Your task to perform on an android device: change timer sound Image 0: 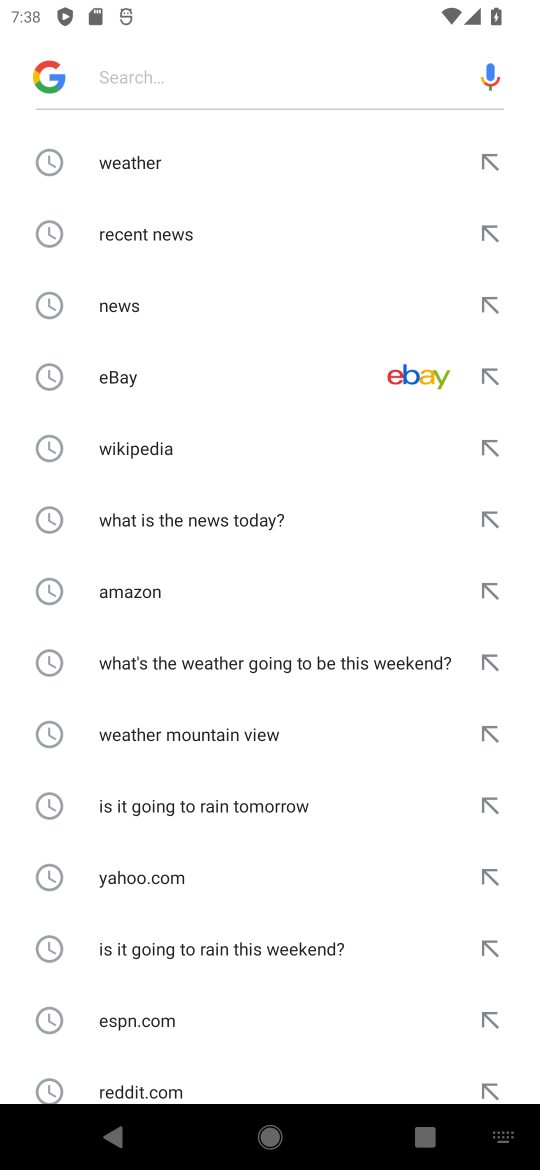
Step 0: press home button
Your task to perform on an android device: change timer sound Image 1: 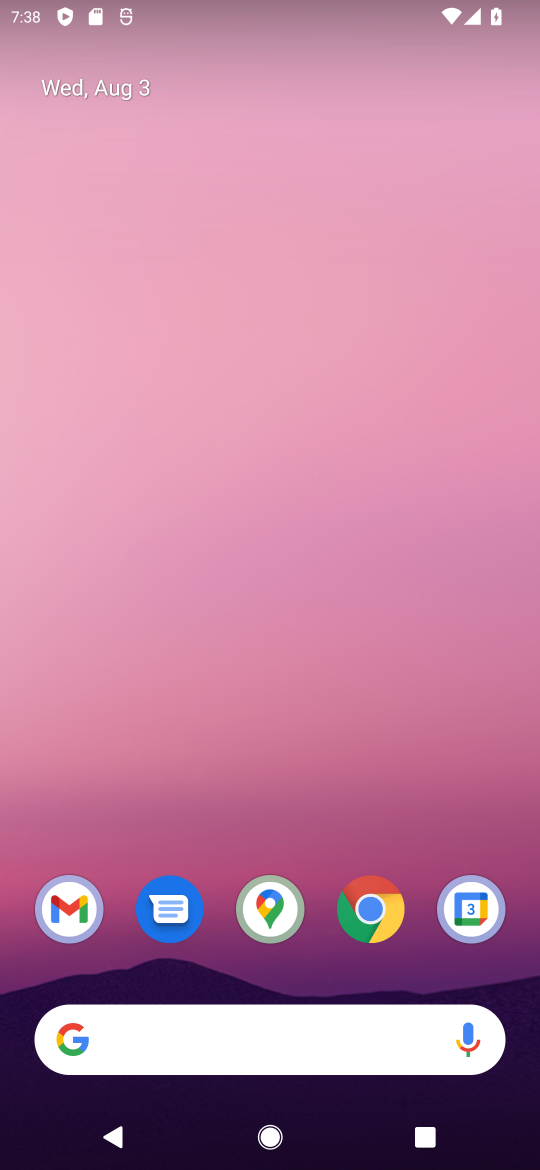
Step 1: drag from (325, 940) to (319, 252)
Your task to perform on an android device: change timer sound Image 2: 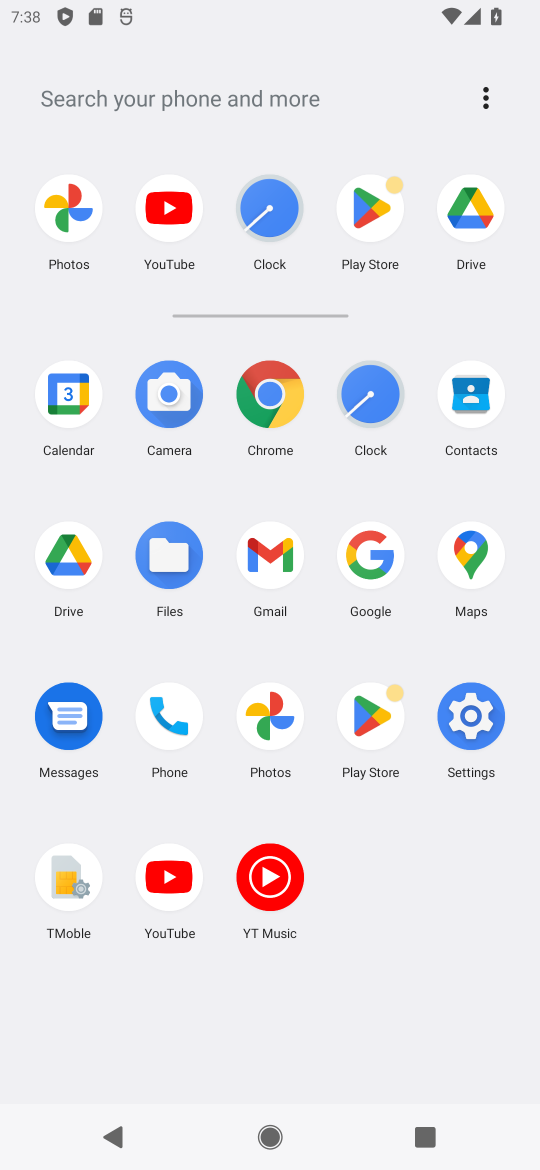
Step 2: click (380, 396)
Your task to perform on an android device: change timer sound Image 3: 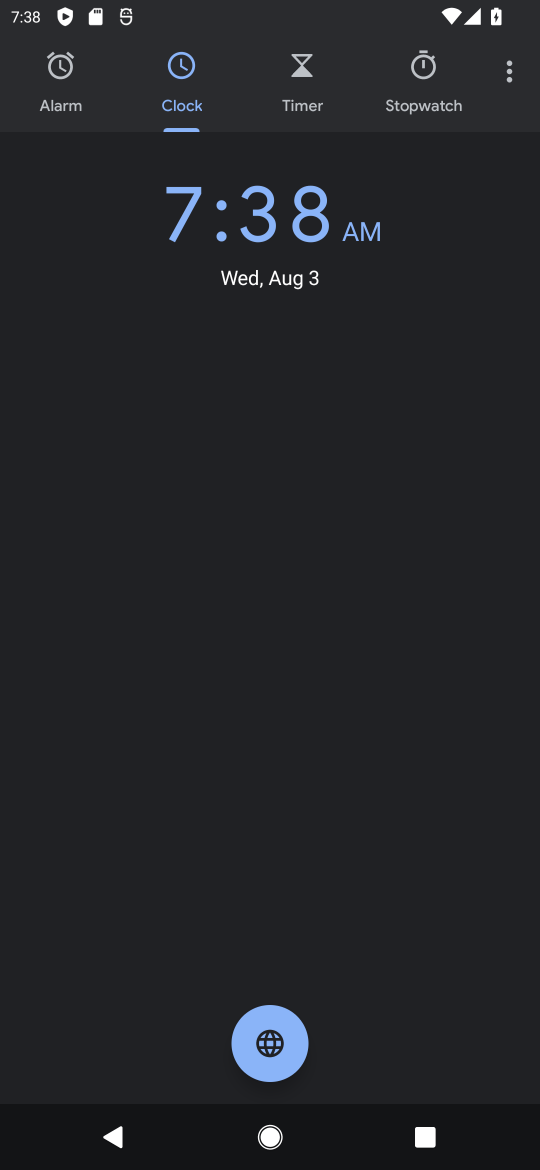
Step 3: click (508, 72)
Your task to perform on an android device: change timer sound Image 4: 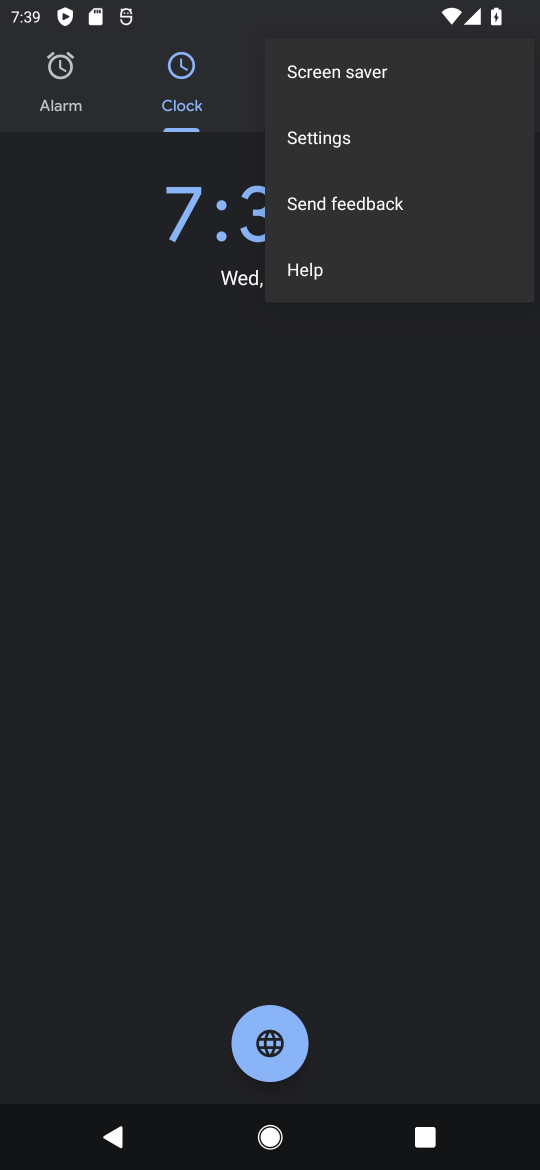
Step 4: click (327, 137)
Your task to perform on an android device: change timer sound Image 5: 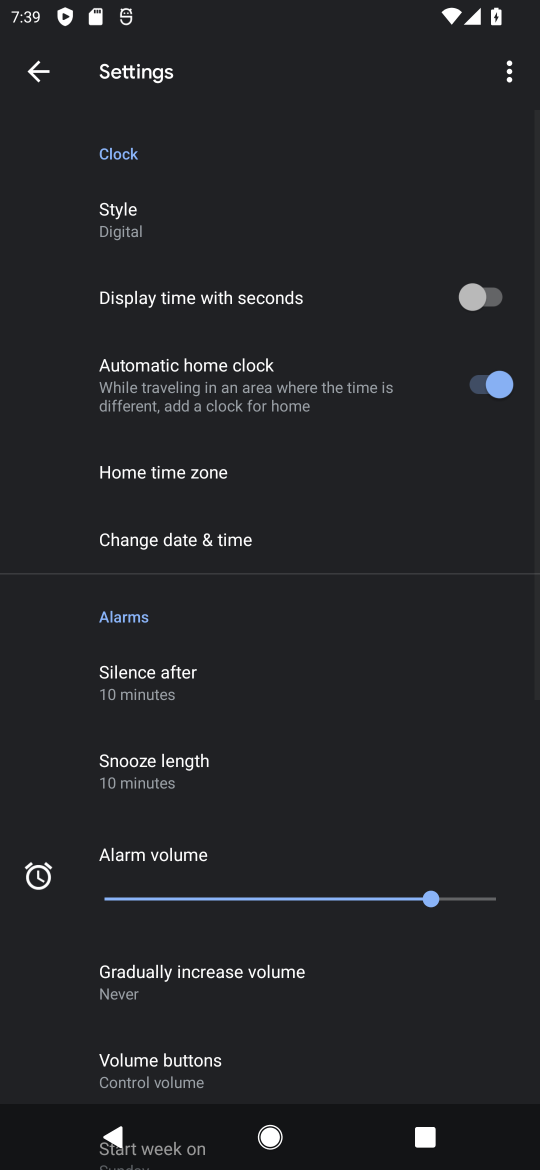
Step 5: drag from (359, 779) to (362, 568)
Your task to perform on an android device: change timer sound Image 6: 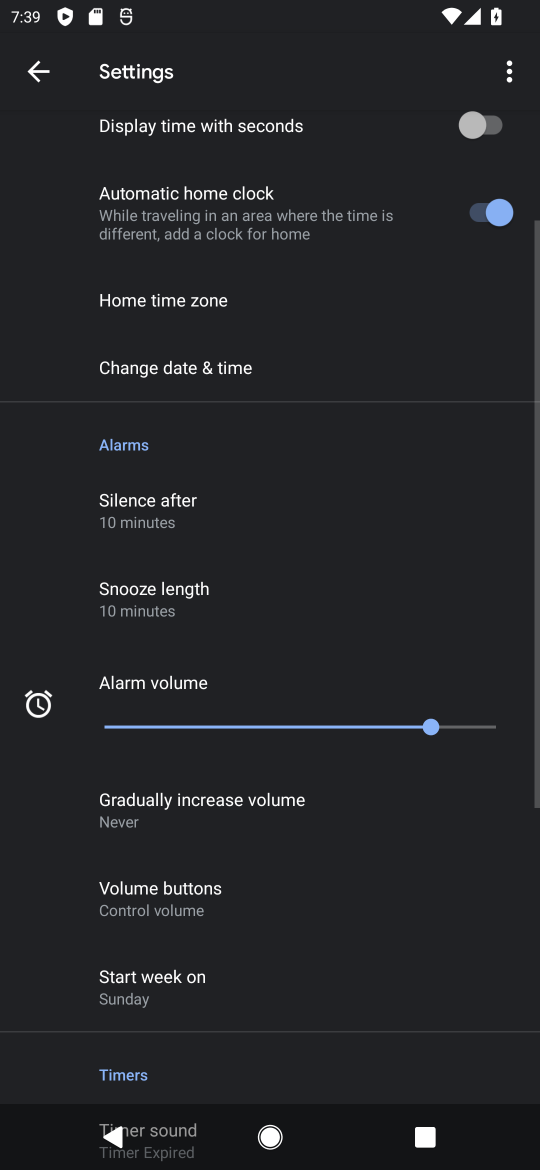
Step 6: drag from (373, 906) to (367, 589)
Your task to perform on an android device: change timer sound Image 7: 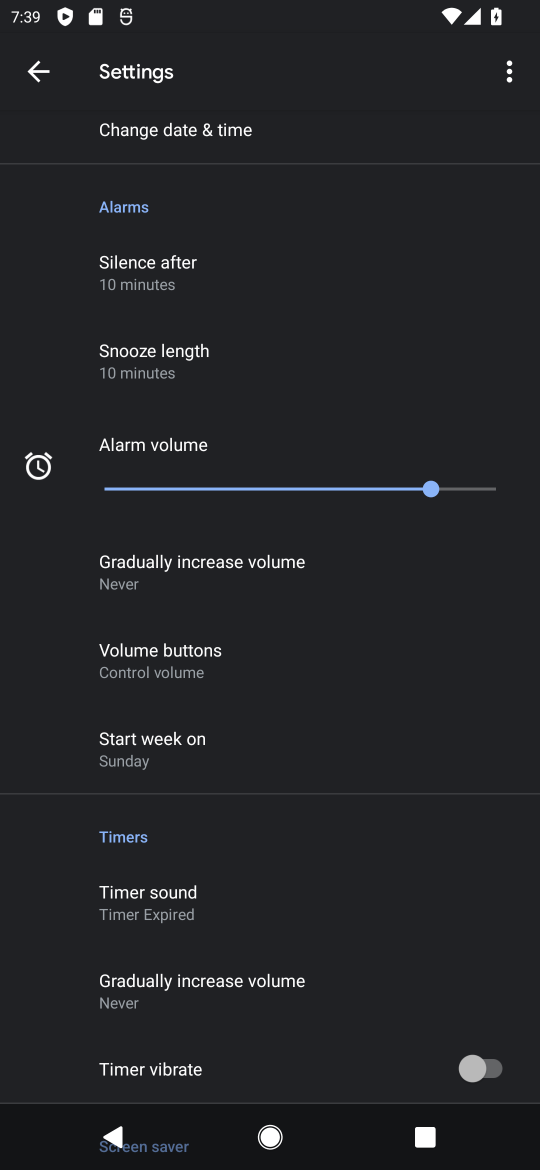
Step 7: click (246, 900)
Your task to perform on an android device: change timer sound Image 8: 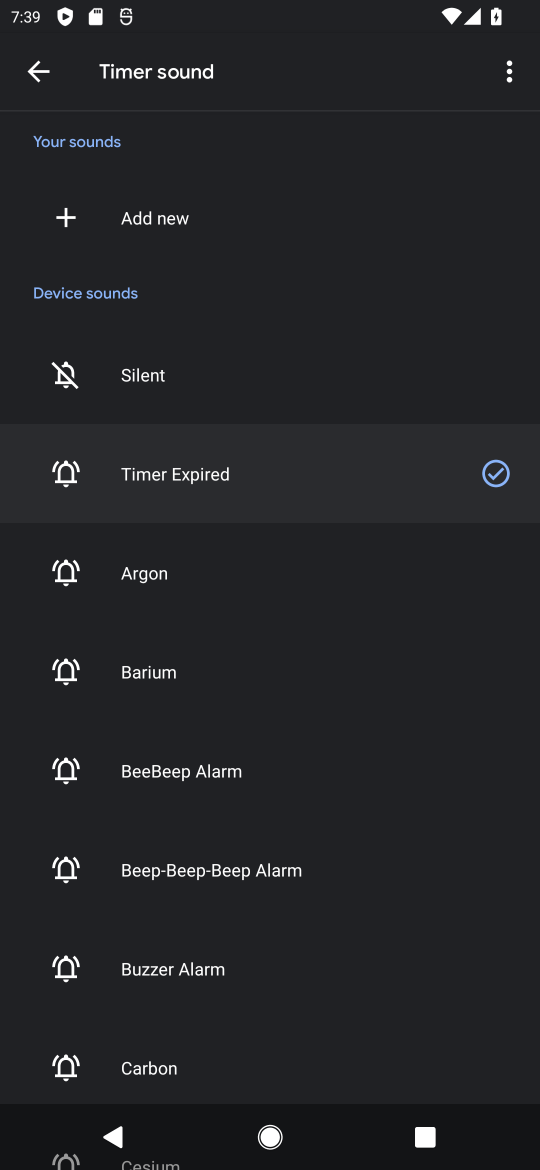
Step 8: click (241, 780)
Your task to perform on an android device: change timer sound Image 9: 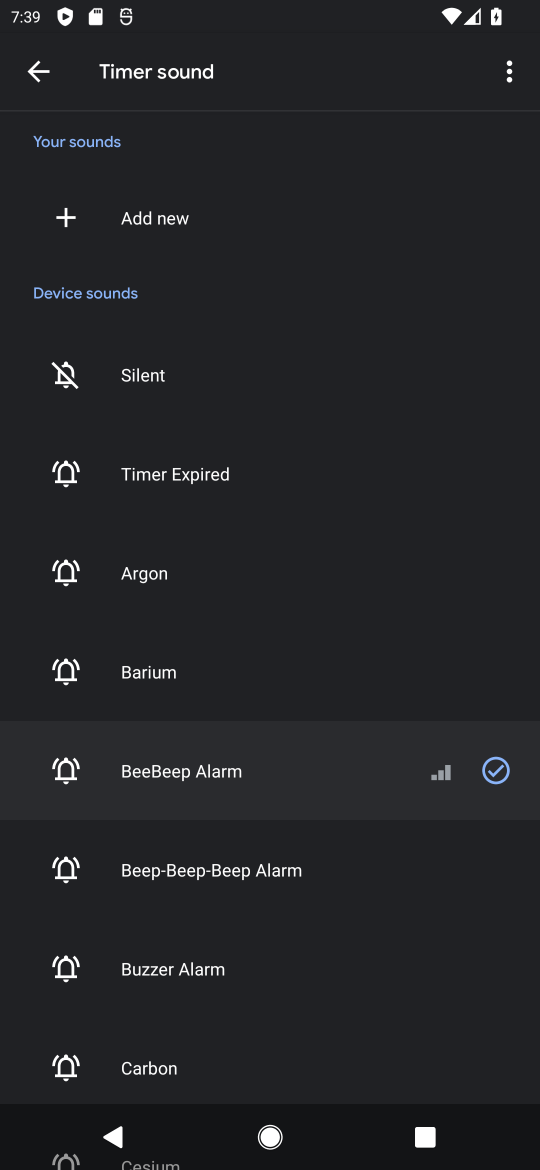
Step 9: task complete